Your task to perform on an android device: Open eBay Image 0: 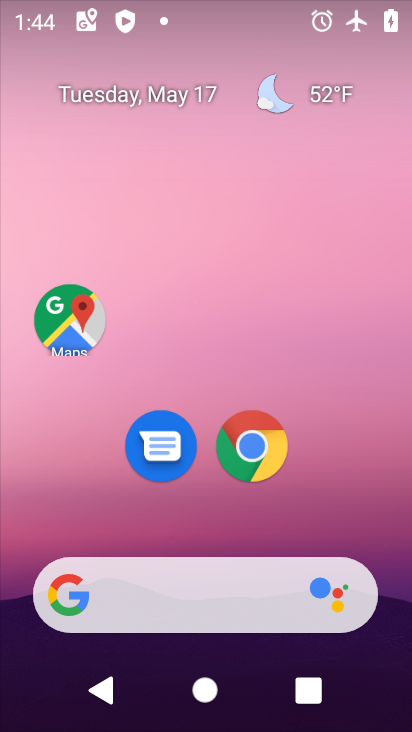
Step 0: click (257, 447)
Your task to perform on an android device: Open eBay Image 1: 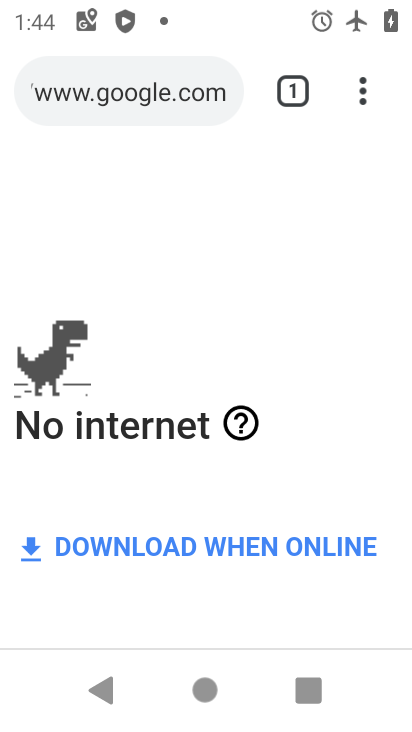
Step 1: click (152, 91)
Your task to perform on an android device: Open eBay Image 2: 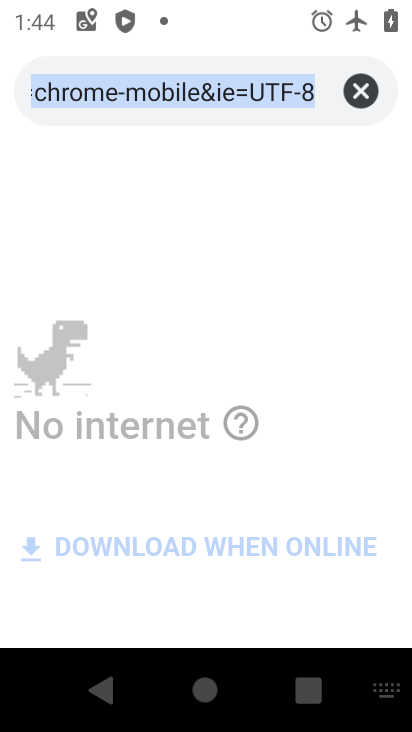
Step 2: type "eBay"
Your task to perform on an android device: Open eBay Image 3: 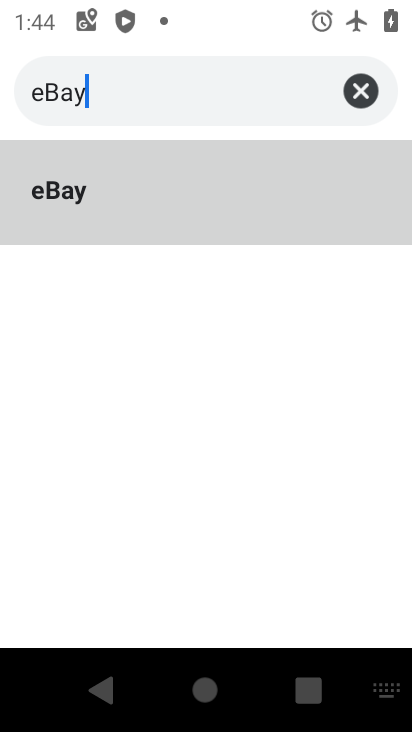
Step 3: click (171, 194)
Your task to perform on an android device: Open eBay Image 4: 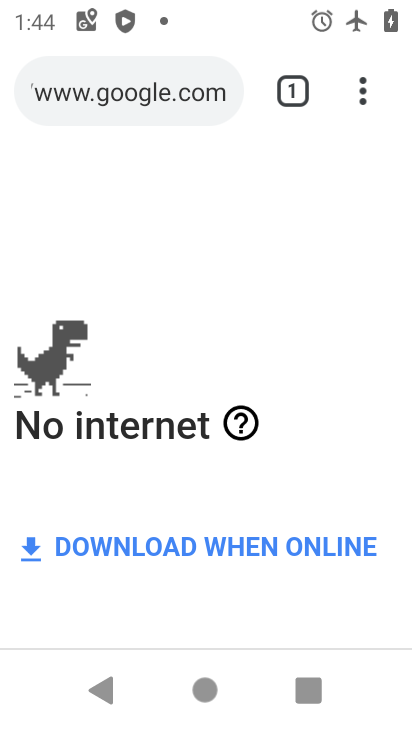
Step 4: task complete